Your task to perform on an android device: allow notifications from all sites in the chrome app Image 0: 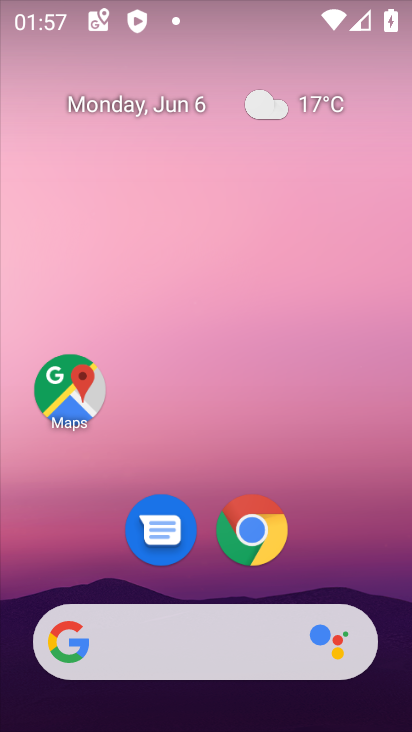
Step 0: click (239, 522)
Your task to perform on an android device: allow notifications from all sites in the chrome app Image 1: 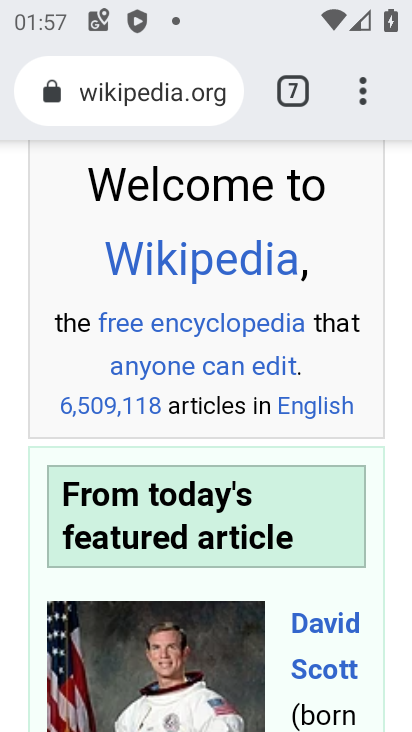
Step 1: click (368, 82)
Your task to perform on an android device: allow notifications from all sites in the chrome app Image 2: 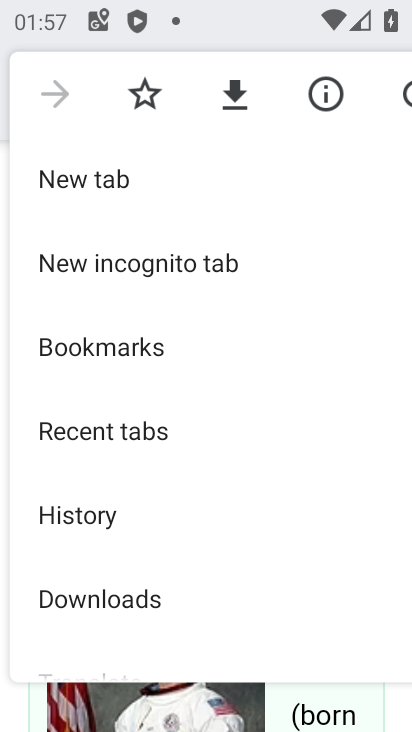
Step 2: drag from (178, 441) to (181, 343)
Your task to perform on an android device: allow notifications from all sites in the chrome app Image 3: 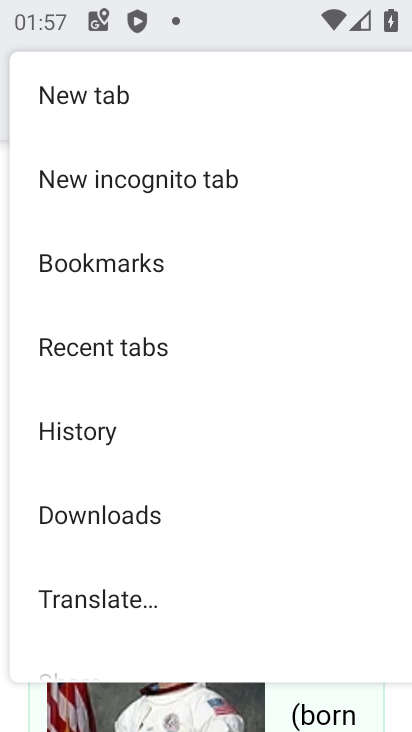
Step 3: drag from (166, 537) to (205, 169)
Your task to perform on an android device: allow notifications from all sites in the chrome app Image 4: 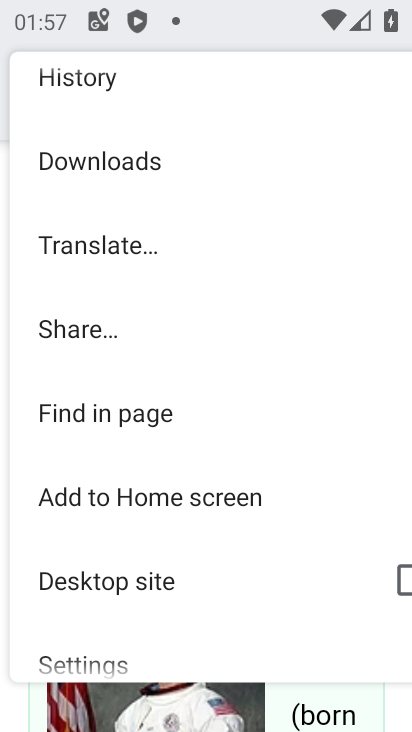
Step 4: click (89, 655)
Your task to perform on an android device: allow notifications from all sites in the chrome app Image 5: 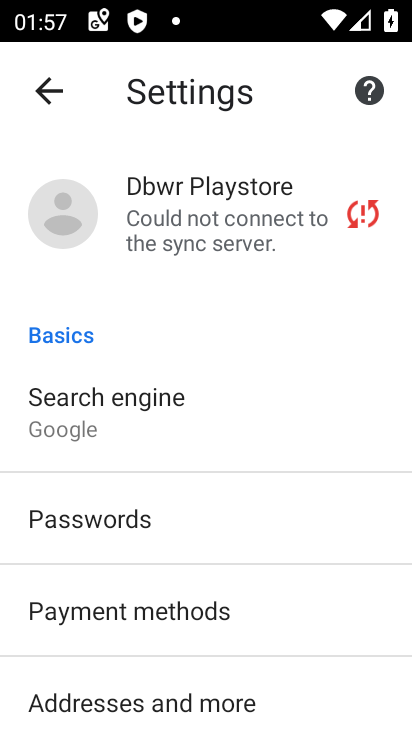
Step 5: drag from (168, 580) to (204, 288)
Your task to perform on an android device: allow notifications from all sites in the chrome app Image 6: 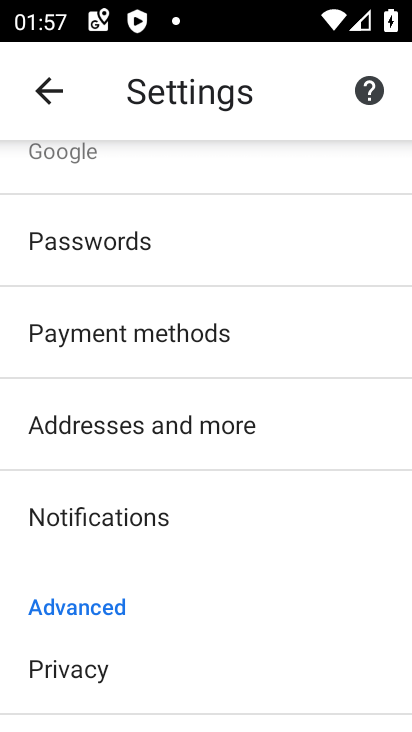
Step 6: drag from (159, 631) to (195, 277)
Your task to perform on an android device: allow notifications from all sites in the chrome app Image 7: 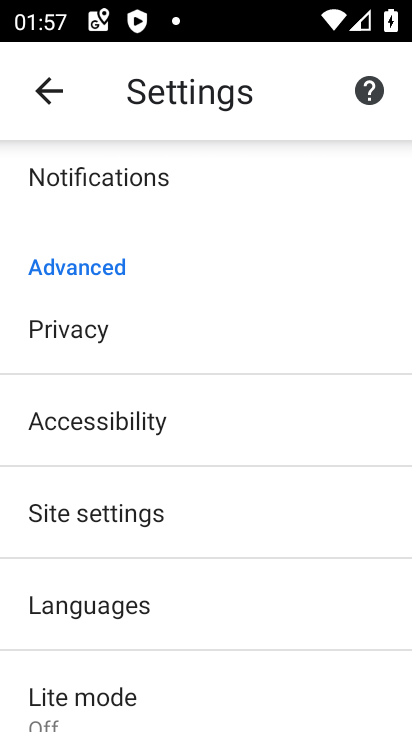
Step 7: click (137, 523)
Your task to perform on an android device: allow notifications from all sites in the chrome app Image 8: 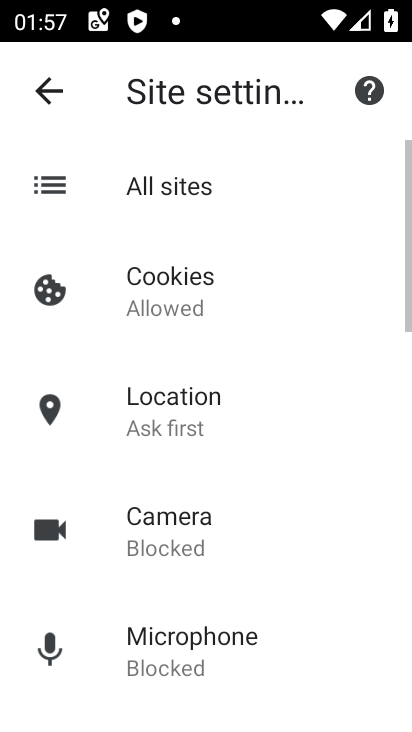
Step 8: click (190, 276)
Your task to perform on an android device: allow notifications from all sites in the chrome app Image 9: 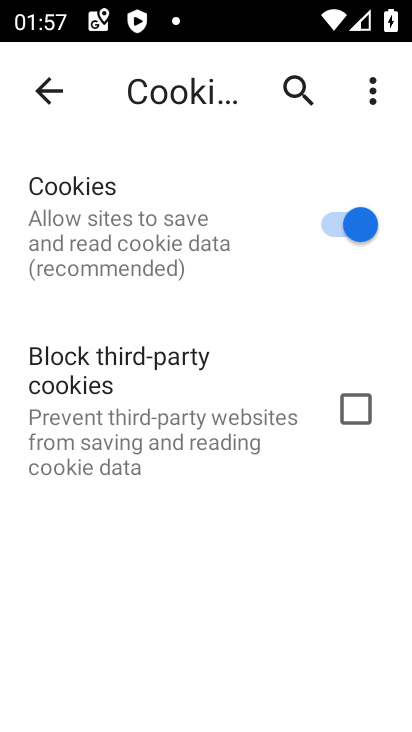
Step 9: click (49, 79)
Your task to perform on an android device: allow notifications from all sites in the chrome app Image 10: 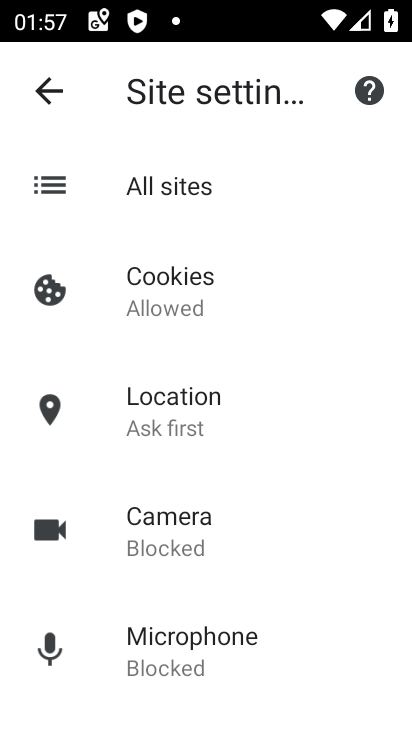
Step 10: click (168, 522)
Your task to perform on an android device: allow notifications from all sites in the chrome app Image 11: 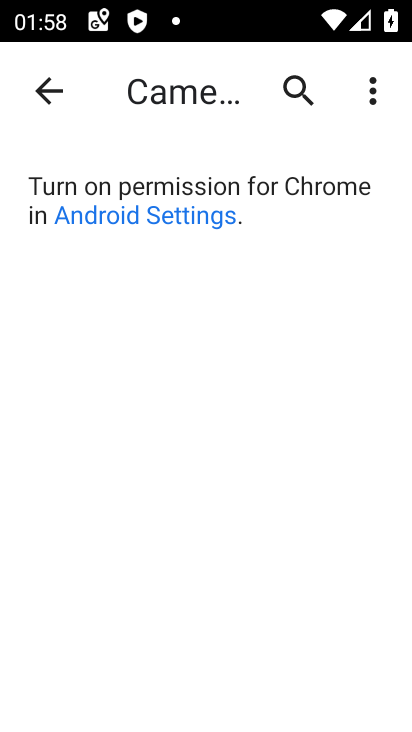
Step 11: click (24, 80)
Your task to perform on an android device: allow notifications from all sites in the chrome app Image 12: 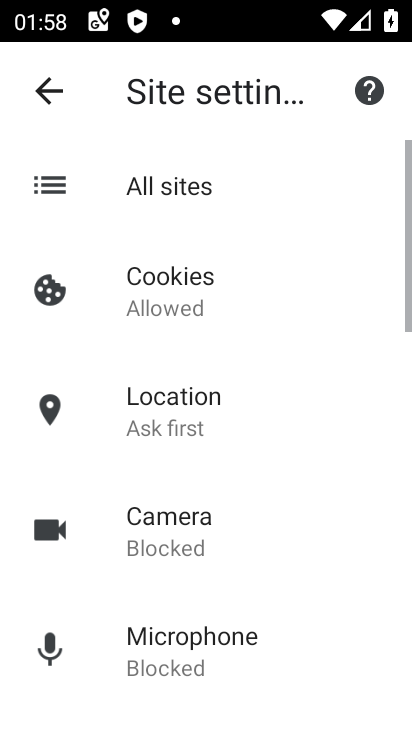
Step 12: click (189, 632)
Your task to perform on an android device: allow notifications from all sites in the chrome app Image 13: 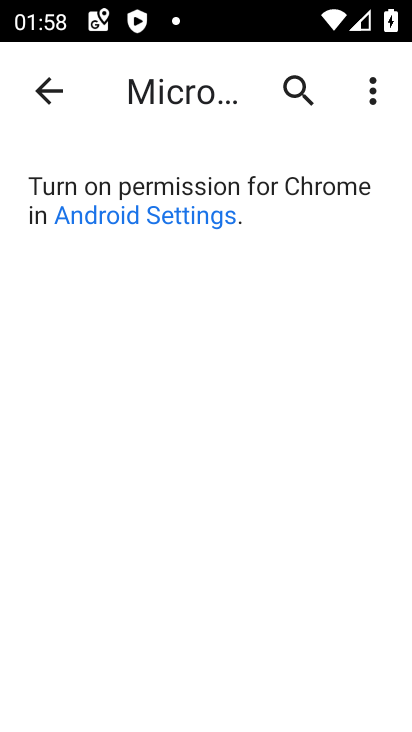
Step 13: click (51, 92)
Your task to perform on an android device: allow notifications from all sites in the chrome app Image 14: 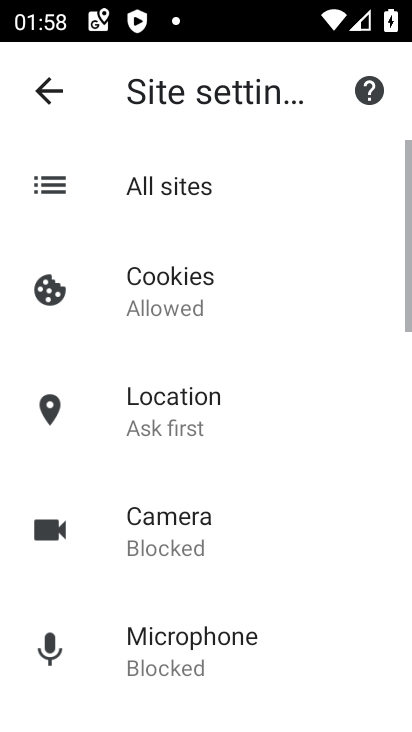
Step 14: drag from (200, 620) to (235, 278)
Your task to perform on an android device: allow notifications from all sites in the chrome app Image 15: 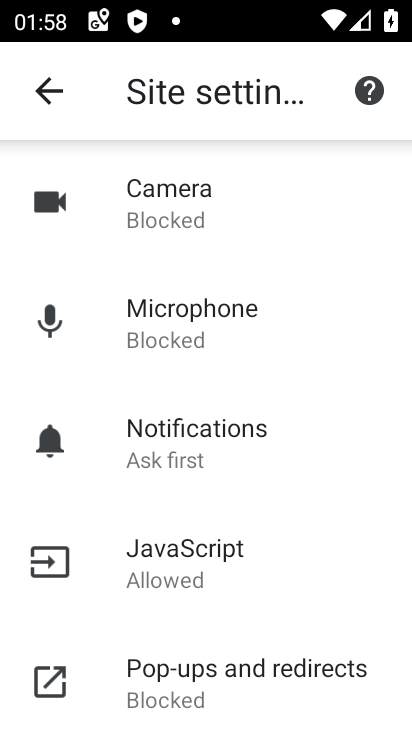
Step 15: click (191, 544)
Your task to perform on an android device: allow notifications from all sites in the chrome app Image 16: 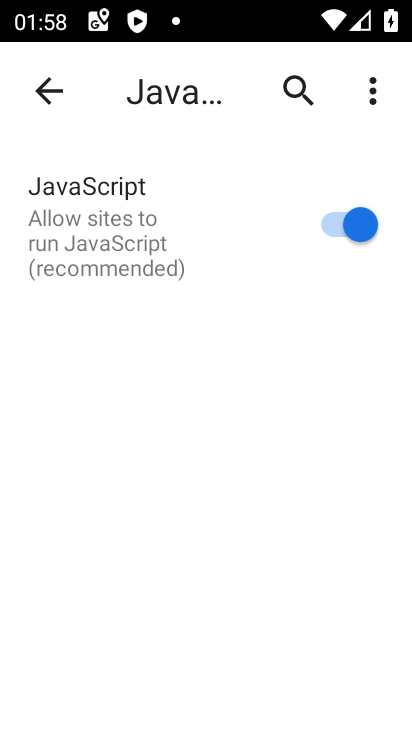
Step 16: click (52, 92)
Your task to perform on an android device: allow notifications from all sites in the chrome app Image 17: 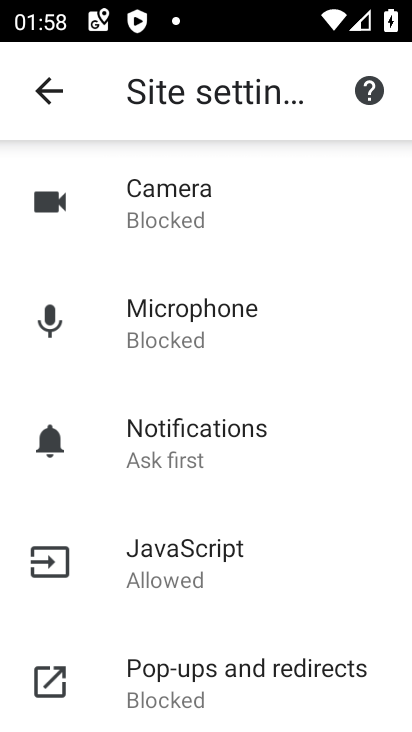
Step 17: task complete